Your task to perform on an android device: Open calendar and show me the third week of next month Image 0: 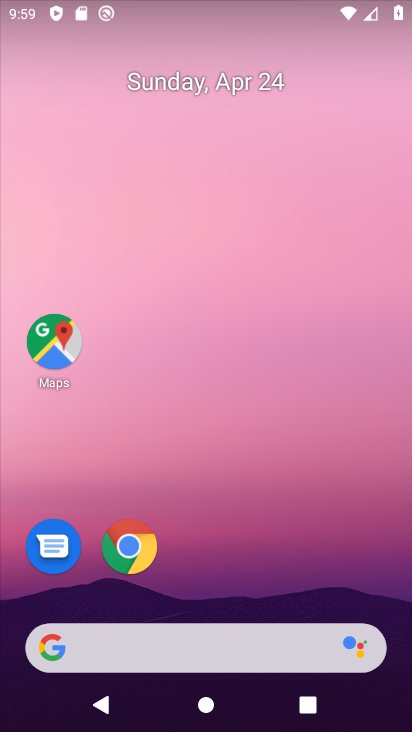
Step 0: drag from (266, 605) to (381, 74)
Your task to perform on an android device: Open calendar and show me the third week of next month Image 1: 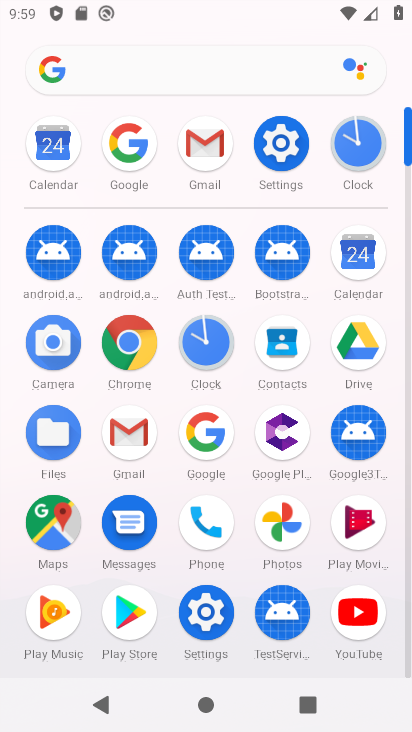
Step 1: click (363, 247)
Your task to perform on an android device: Open calendar and show me the third week of next month Image 2: 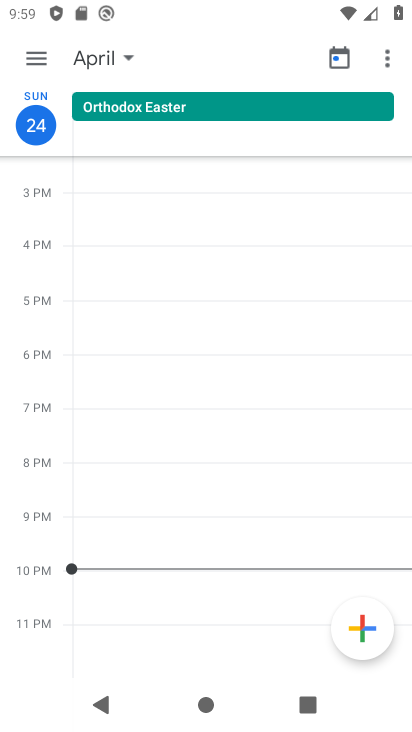
Step 2: click (131, 61)
Your task to perform on an android device: Open calendar and show me the third week of next month Image 3: 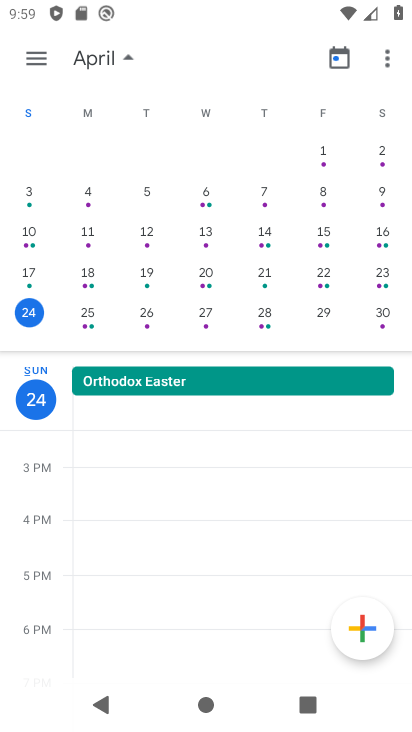
Step 3: drag from (384, 236) to (2, 132)
Your task to perform on an android device: Open calendar and show me the third week of next month Image 4: 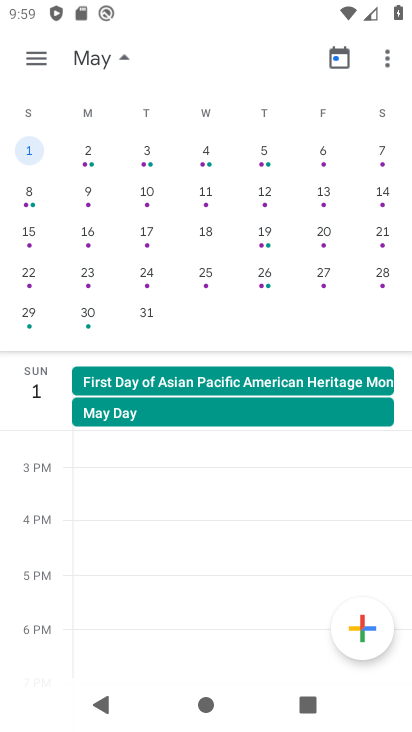
Step 4: click (46, 58)
Your task to perform on an android device: Open calendar and show me the third week of next month Image 5: 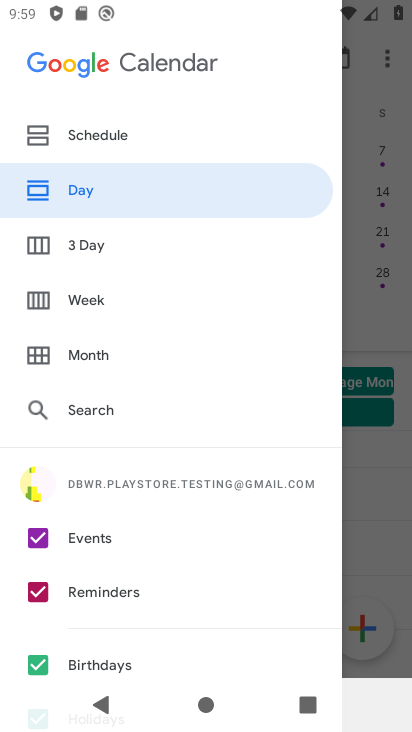
Step 5: click (89, 303)
Your task to perform on an android device: Open calendar and show me the third week of next month Image 6: 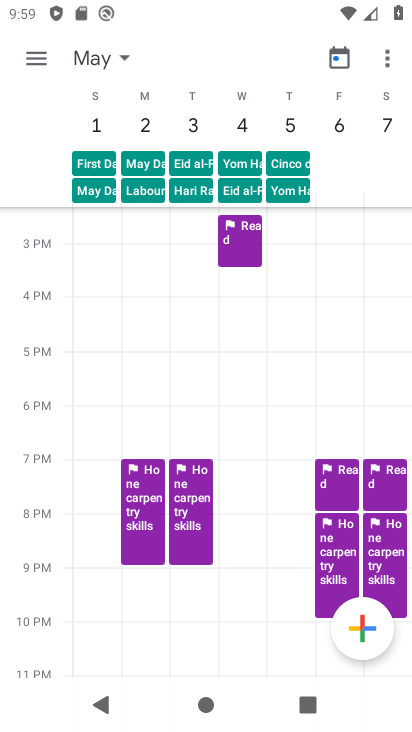
Step 6: task complete